Your task to perform on an android device: open a bookmark in the chrome app Image 0: 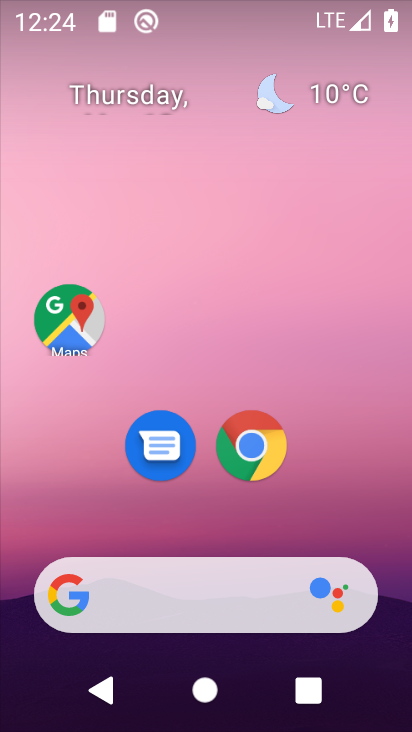
Step 0: click (243, 429)
Your task to perform on an android device: open a bookmark in the chrome app Image 1: 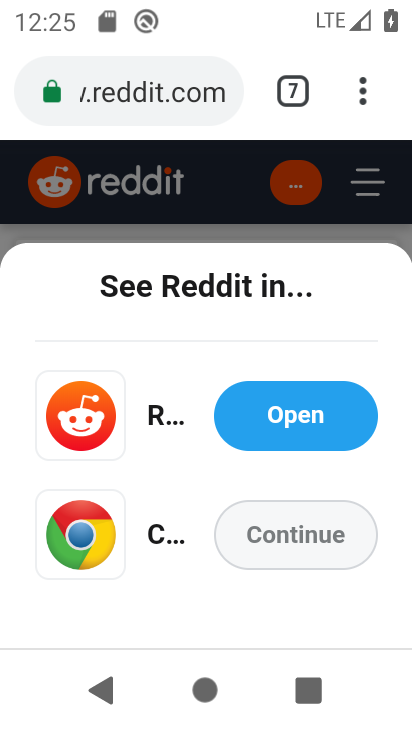
Step 1: task complete